Your task to perform on an android device: turn pop-ups on in chrome Image 0: 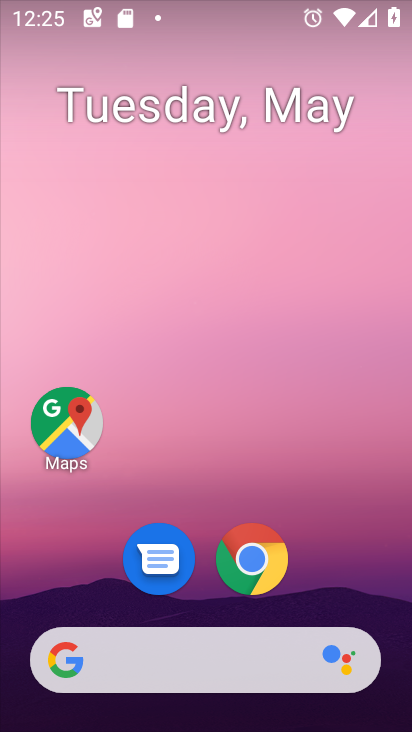
Step 0: click (269, 565)
Your task to perform on an android device: turn pop-ups on in chrome Image 1: 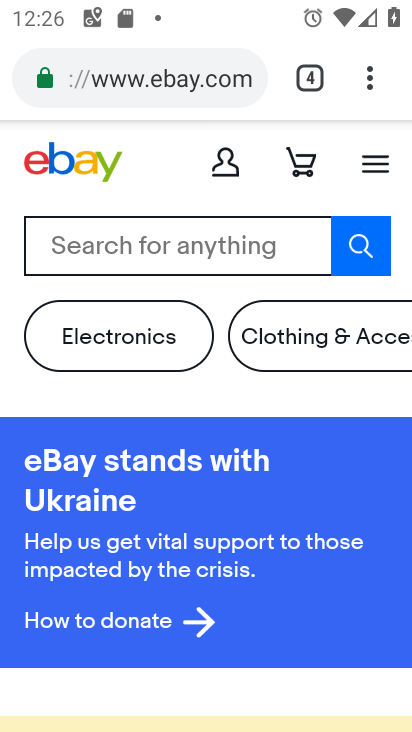
Step 1: click (370, 107)
Your task to perform on an android device: turn pop-ups on in chrome Image 2: 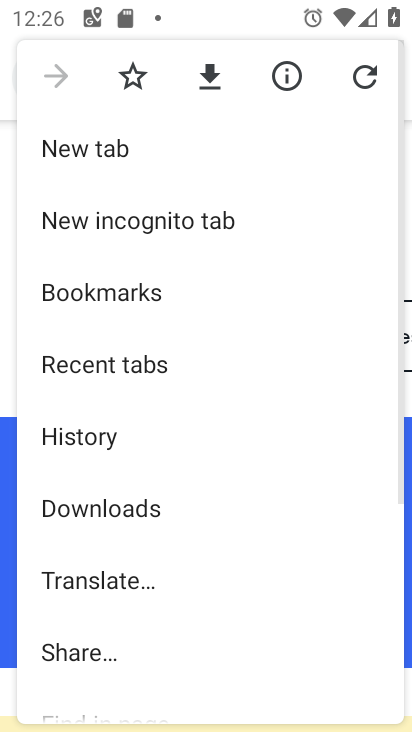
Step 2: drag from (196, 643) to (172, 182)
Your task to perform on an android device: turn pop-ups on in chrome Image 3: 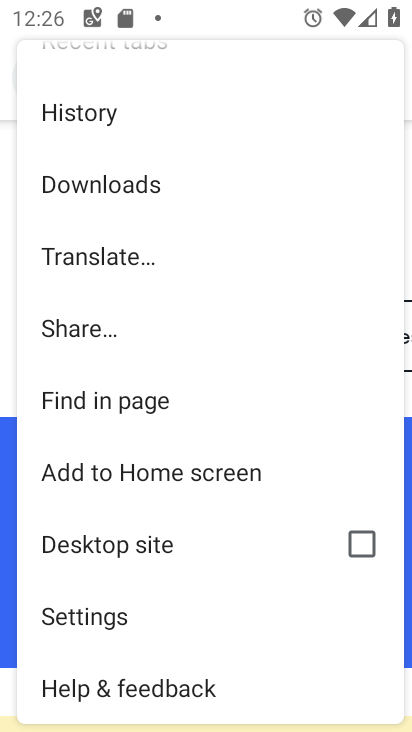
Step 3: click (153, 613)
Your task to perform on an android device: turn pop-ups on in chrome Image 4: 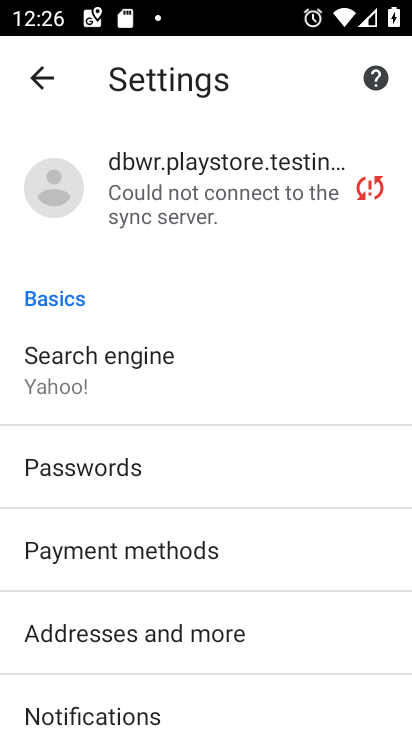
Step 4: drag from (233, 700) to (199, 245)
Your task to perform on an android device: turn pop-ups on in chrome Image 5: 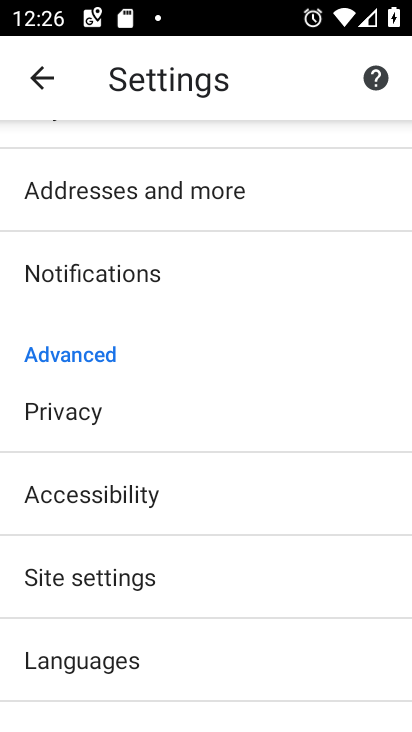
Step 5: click (181, 562)
Your task to perform on an android device: turn pop-ups on in chrome Image 6: 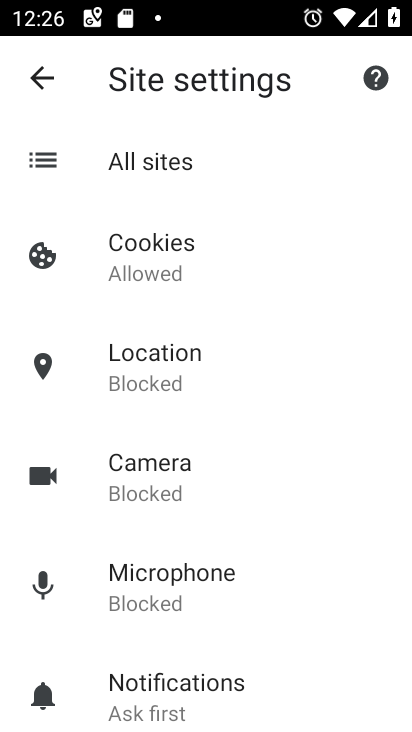
Step 6: drag from (219, 666) to (166, 357)
Your task to perform on an android device: turn pop-ups on in chrome Image 7: 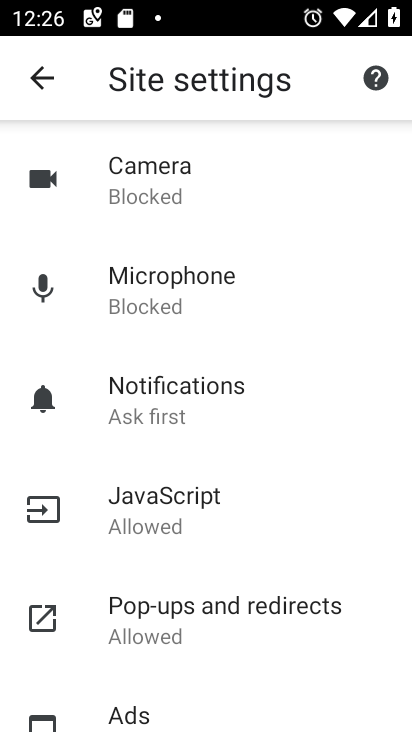
Step 7: click (195, 598)
Your task to perform on an android device: turn pop-ups on in chrome Image 8: 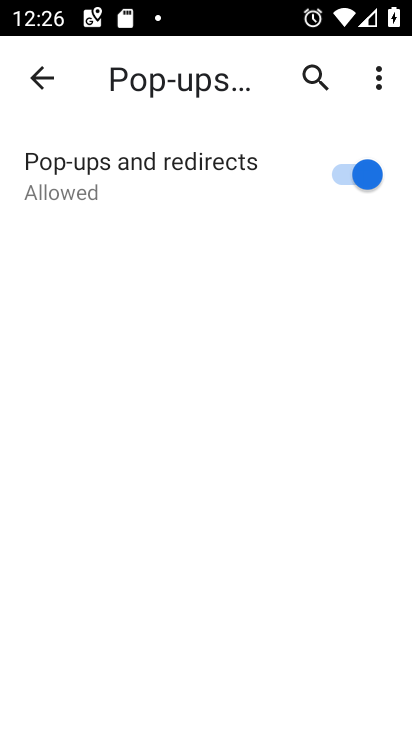
Step 8: task complete